Your task to perform on an android device: turn smart compose on in the gmail app Image 0: 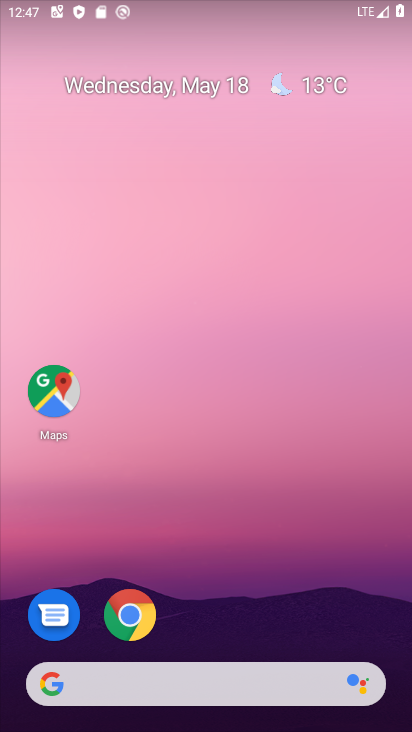
Step 0: press home button
Your task to perform on an android device: turn smart compose on in the gmail app Image 1: 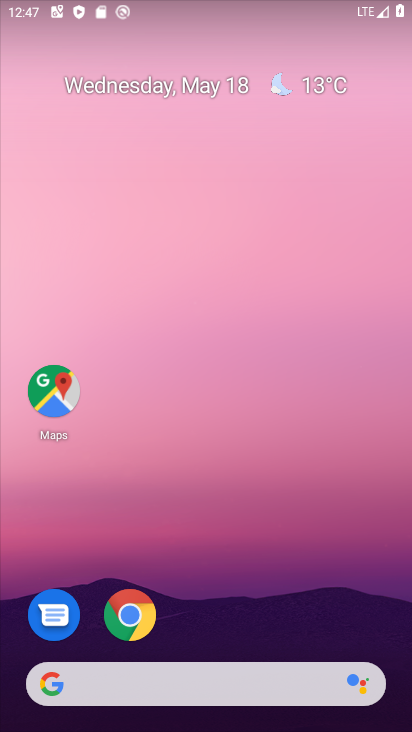
Step 1: drag from (150, 691) to (250, 254)
Your task to perform on an android device: turn smart compose on in the gmail app Image 2: 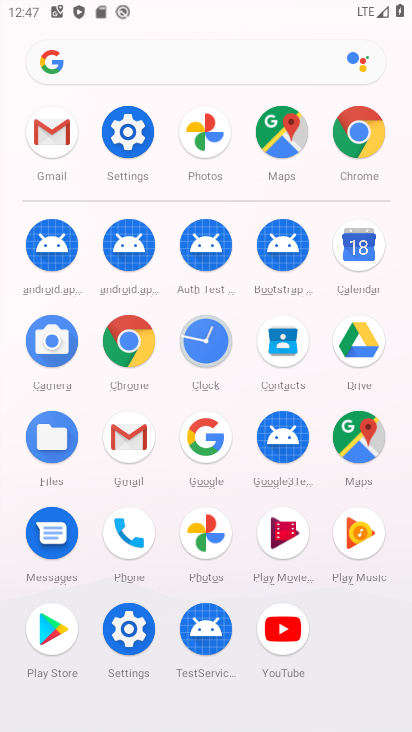
Step 2: click (52, 145)
Your task to perform on an android device: turn smart compose on in the gmail app Image 3: 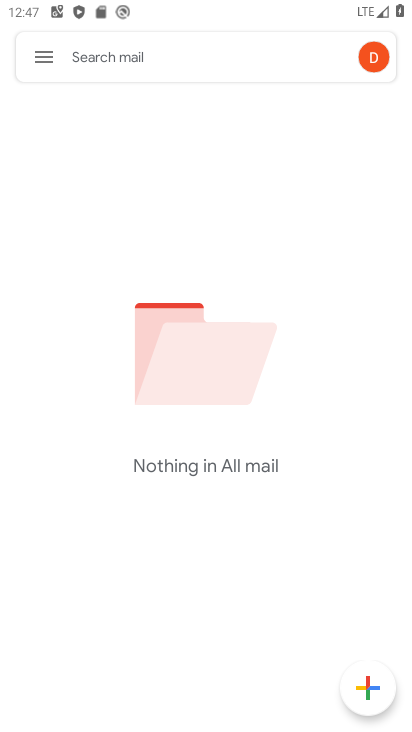
Step 3: click (44, 59)
Your task to perform on an android device: turn smart compose on in the gmail app Image 4: 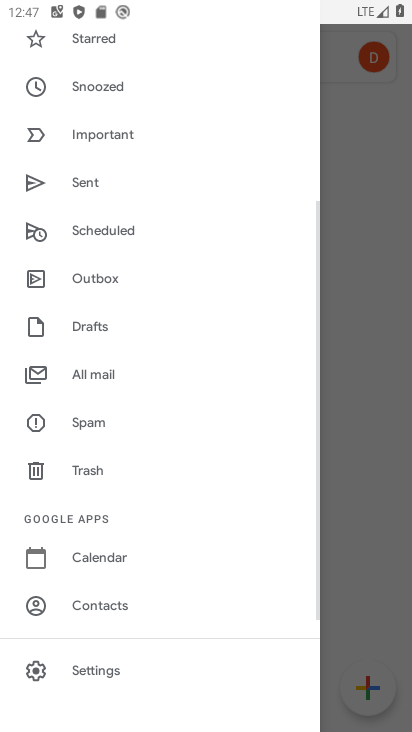
Step 4: click (122, 673)
Your task to perform on an android device: turn smart compose on in the gmail app Image 5: 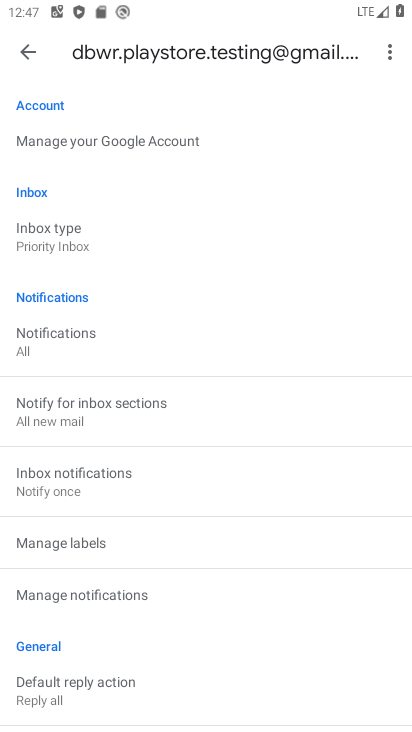
Step 5: task complete